Your task to perform on an android device: Is it going to rain tomorrow? Image 0: 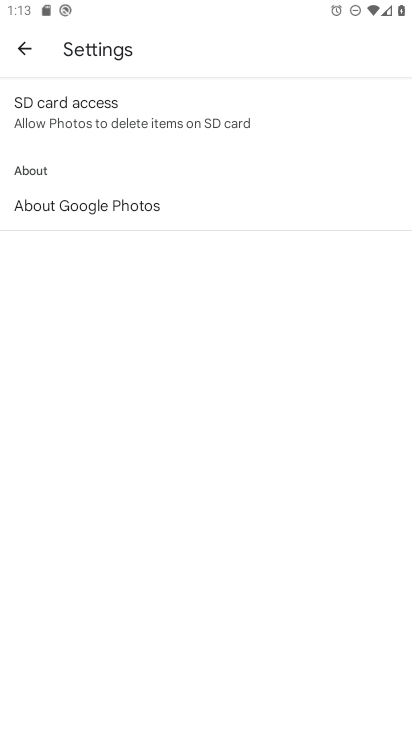
Step 0: press home button
Your task to perform on an android device: Is it going to rain tomorrow? Image 1: 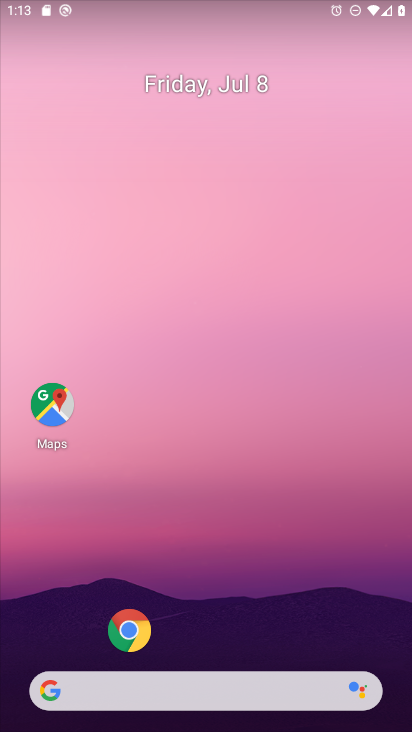
Step 1: drag from (256, 702) to (201, 104)
Your task to perform on an android device: Is it going to rain tomorrow? Image 2: 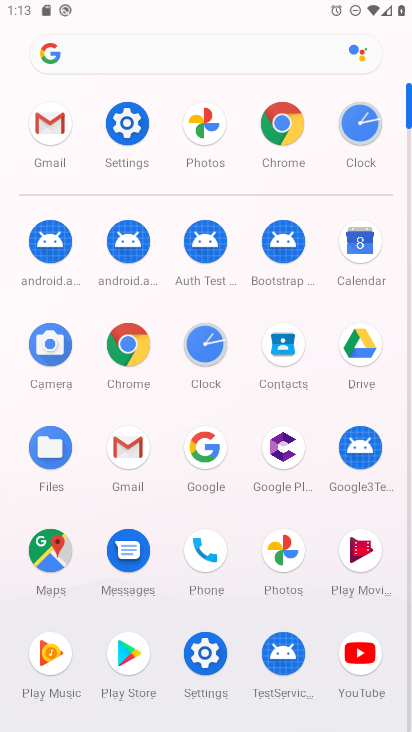
Step 2: click (139, 336)
Your task to perform on an android device: Is it going to rain tomorrow? Image 3: 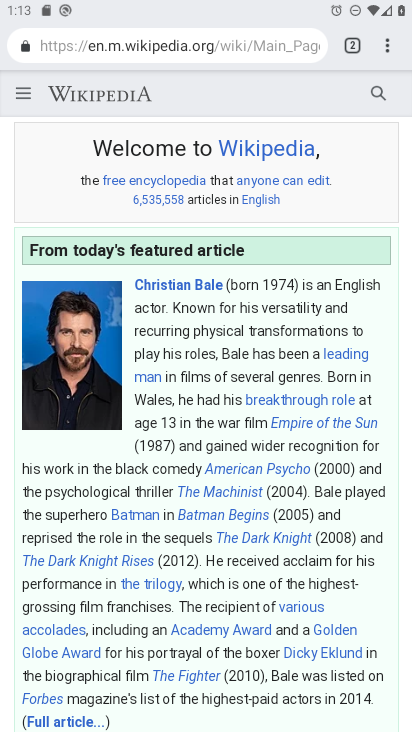
Step 3: press home button
Your task to perform on an android device: Is it going to rain tomorrow? Image 4: 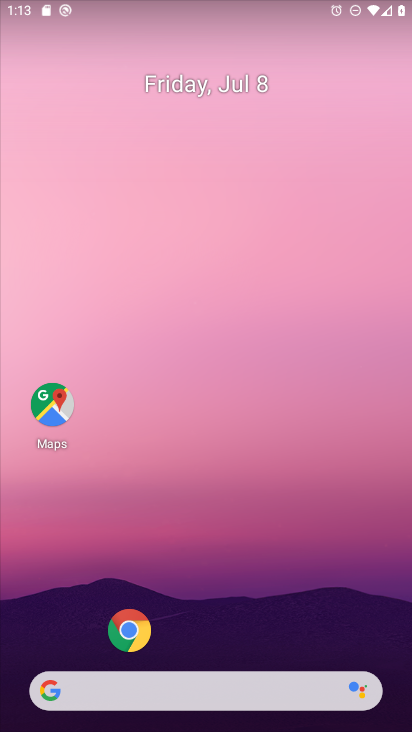
Step 4: drag from (142, 688) to (193, 102)
Your task to perform on an android device: Is it going to rain tomorrow? Image 5: 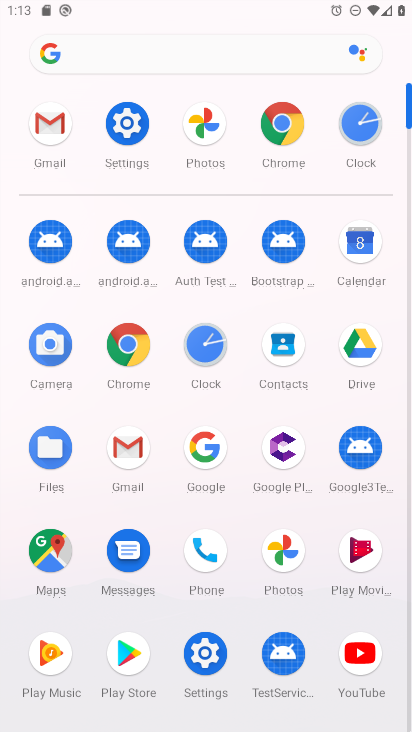
Step 5: click (199, 466)
Your task to perform on an android device: Is it going to rain tomorrow? Image 6: 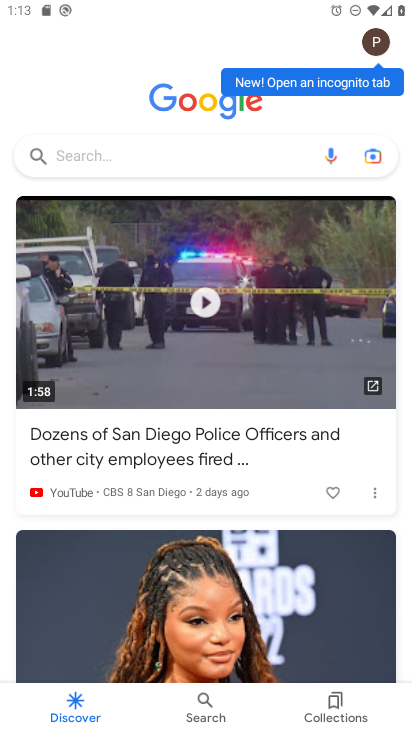
Step 6: click (279, 147)
Your task to perform on an android device: Is it going to rain tomorrow? Image 7: 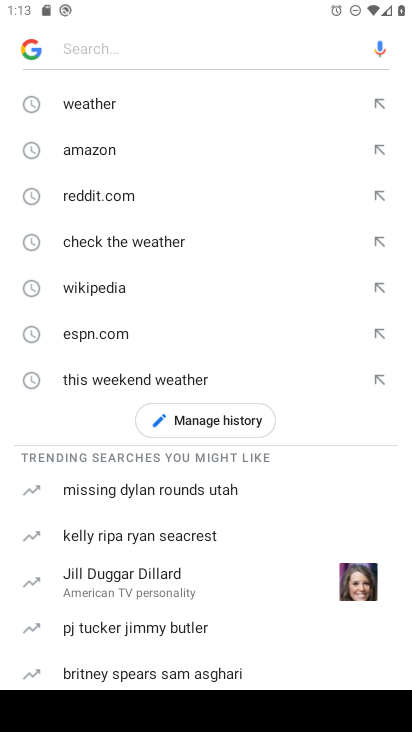
Step 7: type "going to rain tomorrow"
Your task to perform on an android device: Is it going to rain tomorrow? Image 8: 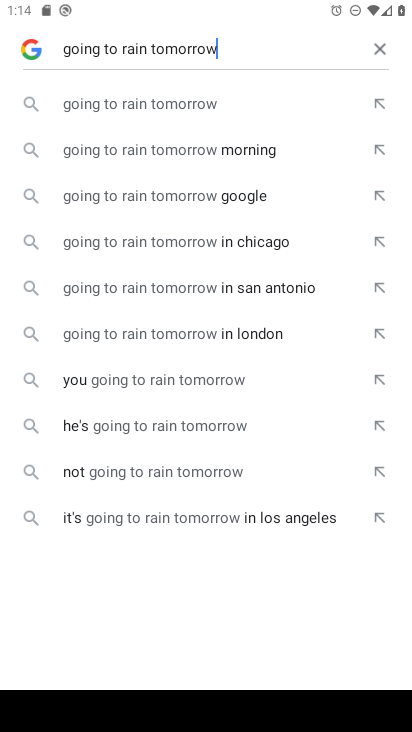
Step 8: click (177, 101)
Your task to perform on an android device: Is it going to rain tomorrow? Image 9: 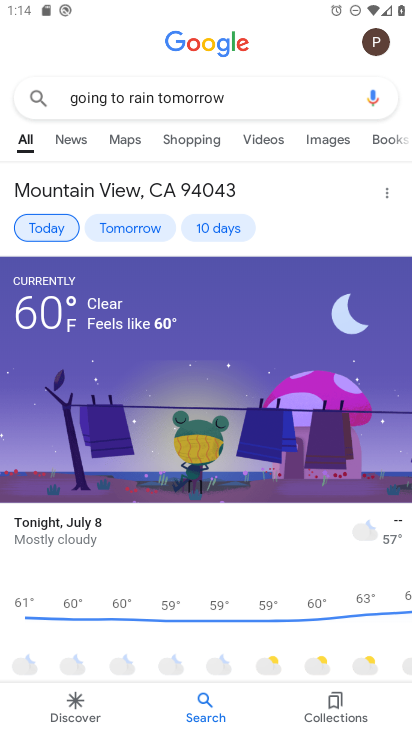
Step 9: click (123, 225)
Your task to perform on an android device: Is it going to rain tomorrow? Image 10: 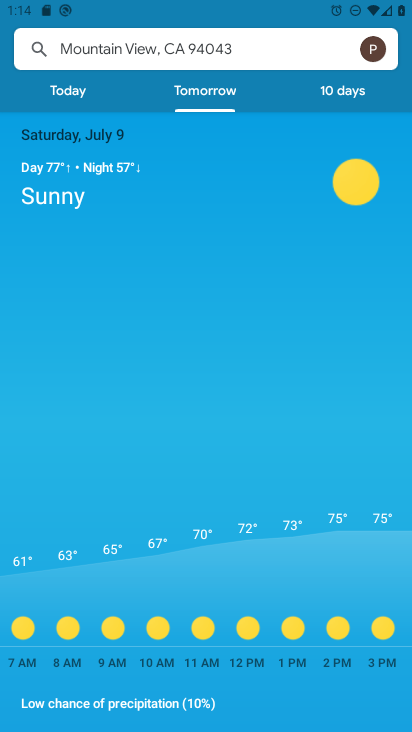
Step 10: task complete